Your task to perform on an android device: turn off picture-in-picture Image 0: 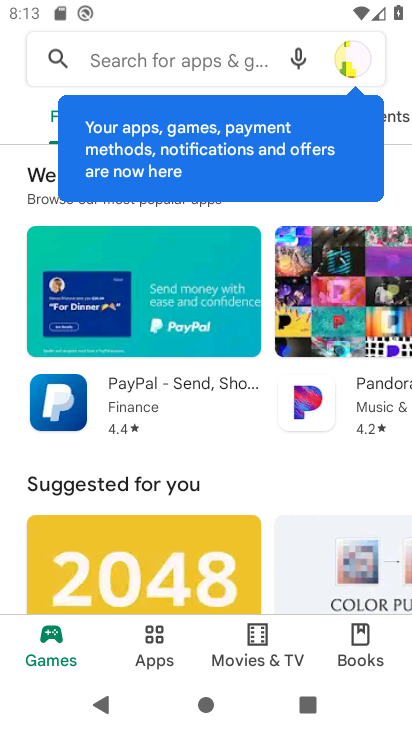
Step 0: press home button
Your task to perform on an android device: turn off picture-in-picture Image 1: 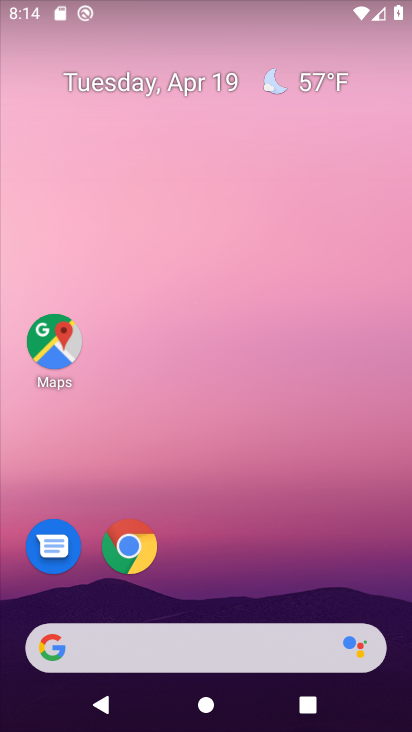
Step 1: click (130, 556)
Your task to perform on an android device: turn off picture-in-picture Image 2: 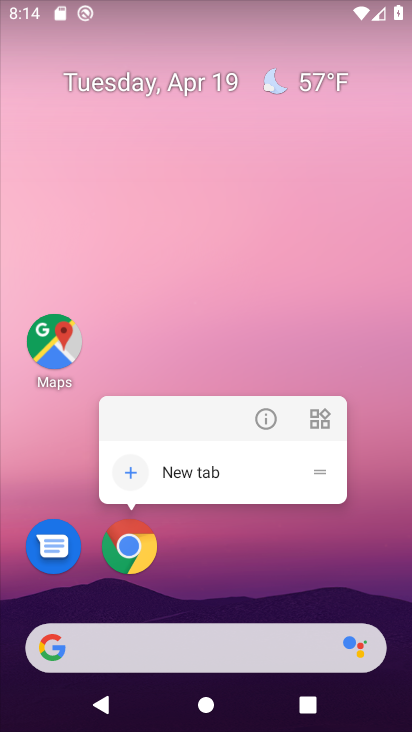
Step 2: click (266, 418)
Your task to perform on an android device: turn off picture-in-picture Image 3: 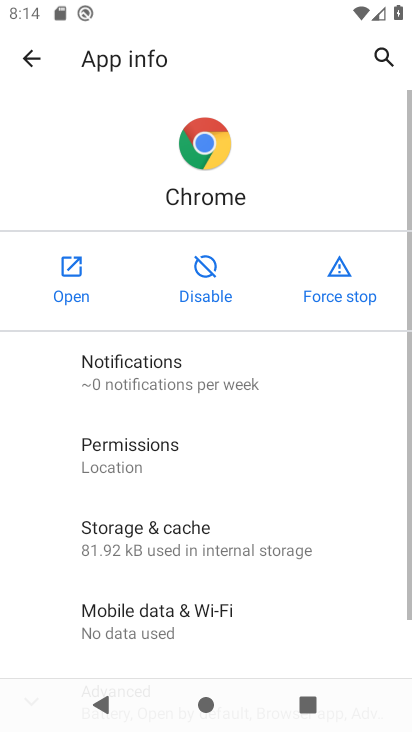
Step 3: drag from (186, 584) to (294, 37)
Your task to perform on an android device: turn off picture-in-picture Image 4: 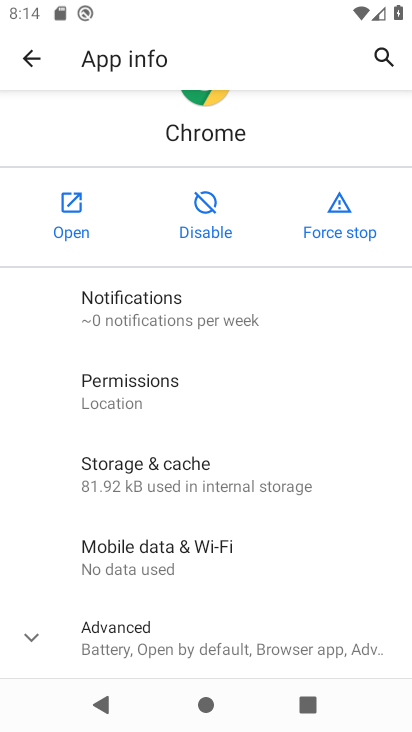
Step 4: click (121, 637)
Your task to perform on an android device: turn off picture-in-picture Image 5: 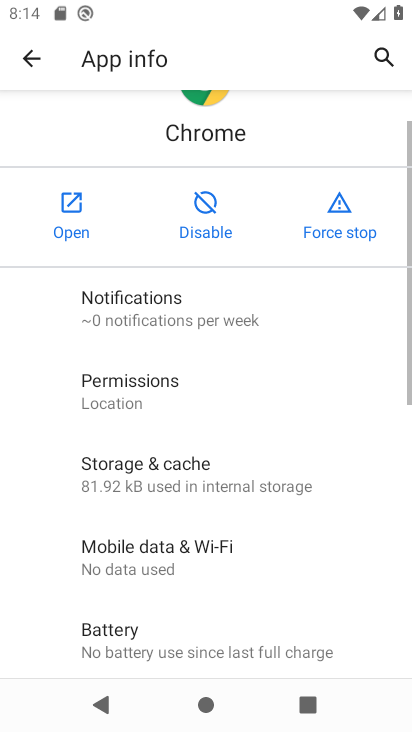
Step 5: drag from (213, 621) to (266, 248)
Your task to perform on an android device: turn off picture-in-picture Image 6: 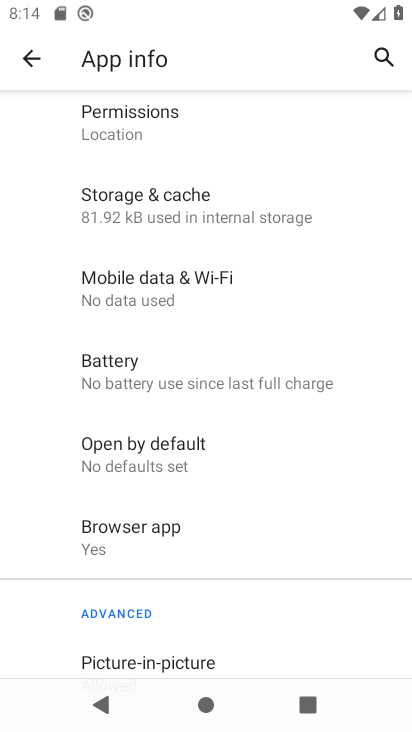
Step 6: drag from (173, 551) to (238, 167)
Your task to perform on an android device: turn off picture-in-picture Image 7: 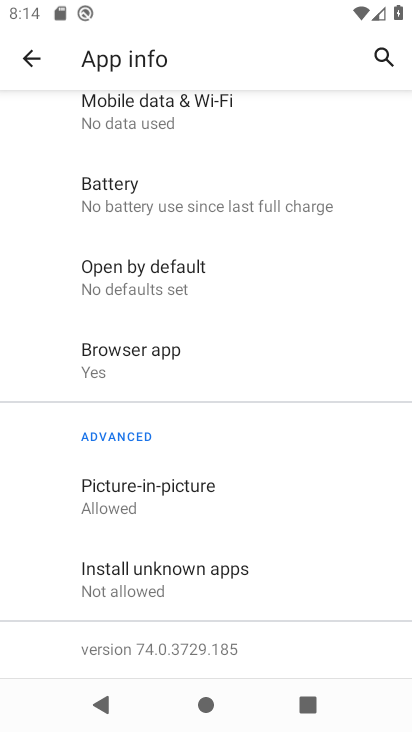
Step 7: click (139, 515)
Your task to perform on an android device: turn off picture-in-picture Image 8: 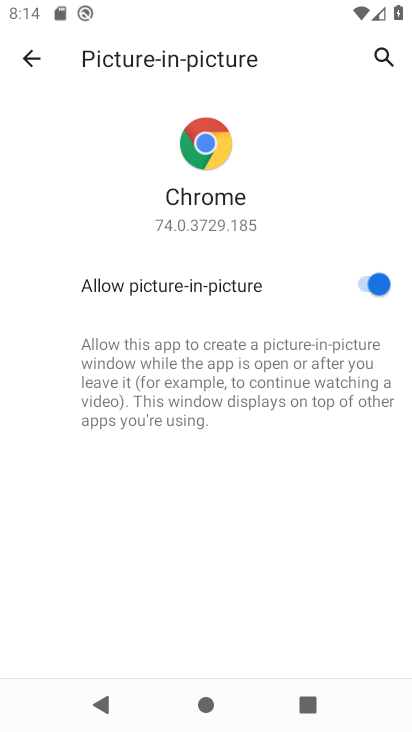
Step 8: click (363, 280)
Your task to perform on an android device: turn off picture-in-picture Image 9: 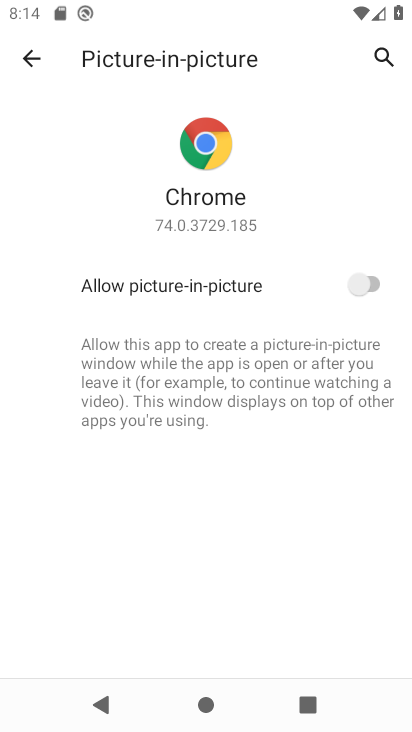
Step 9: task complete